Your task to perform on an android device: Open Google Image 0: 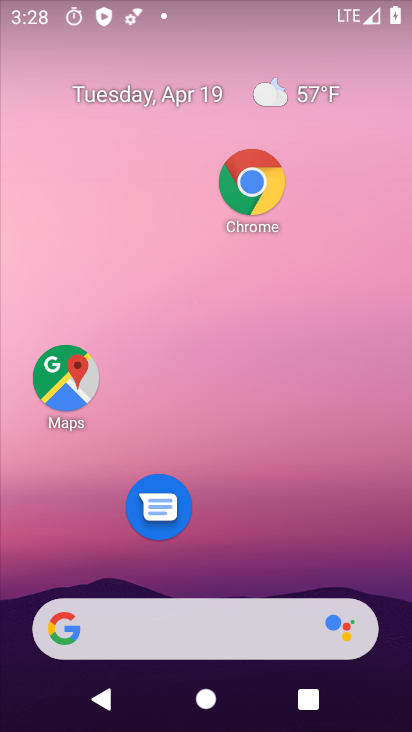
Step 0: click (330, 410)
Your task to perform on an android device: Open Google Image 1: 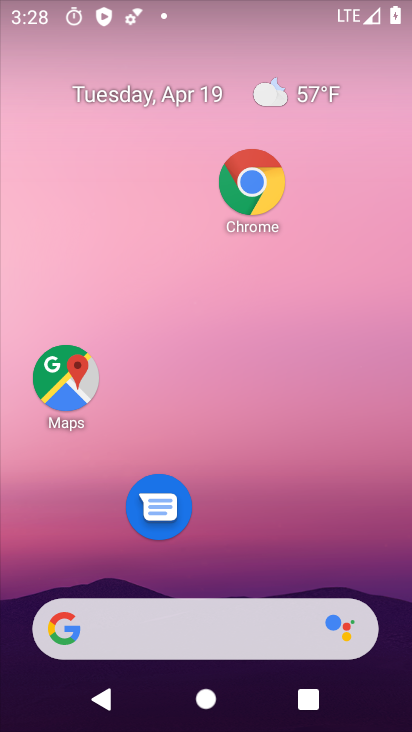
Step 1: drag from (256, 573) to (266, 137)
Your task to perform on an android device: Open Google Image 2: 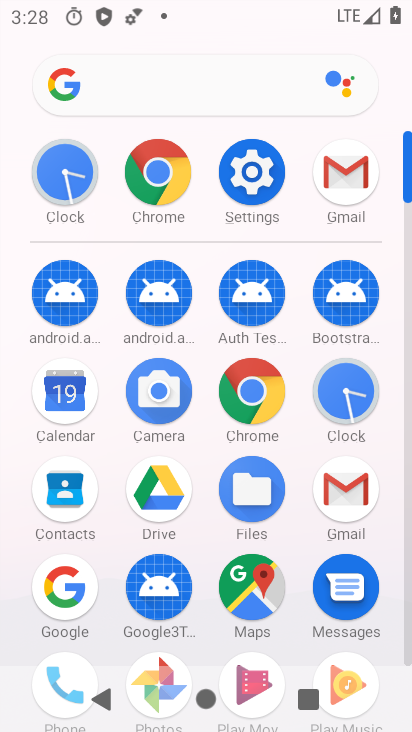
Step 2: click (71, 591)
Your task to perform on an android device: Open Google Image 3: 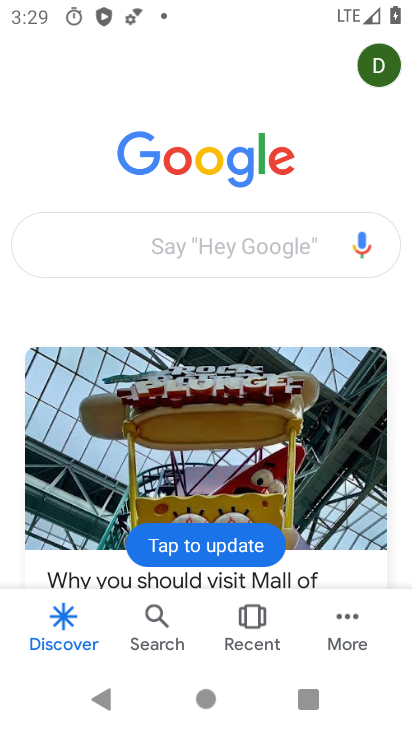
Step 3: task complete